Your task to perform on an android device: refresh tabs in the chrome app Image 0: 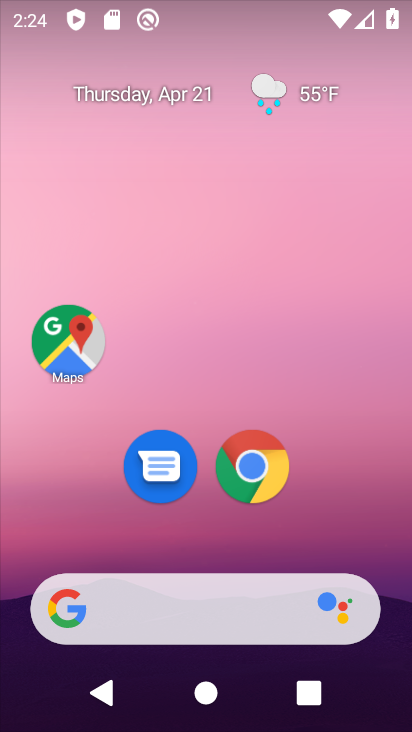
Step 0: click (261, 461)
Your task to perform on an android device: refresh tabs in the chrome app Image 1: 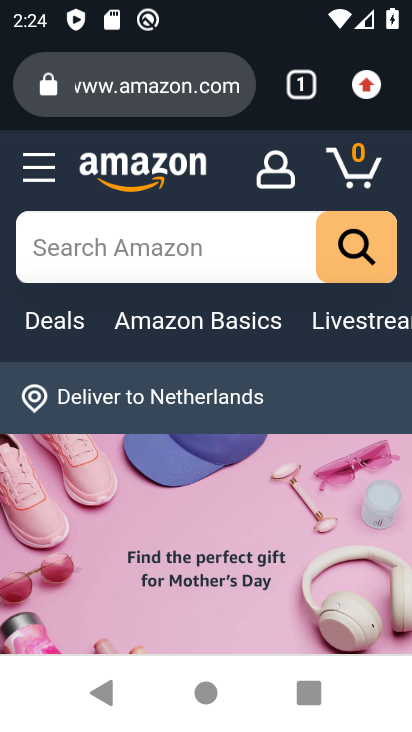
Step 1: click (368, 87)
Your task to perform on an android device: refresh tabs in the chrome app Image 2: 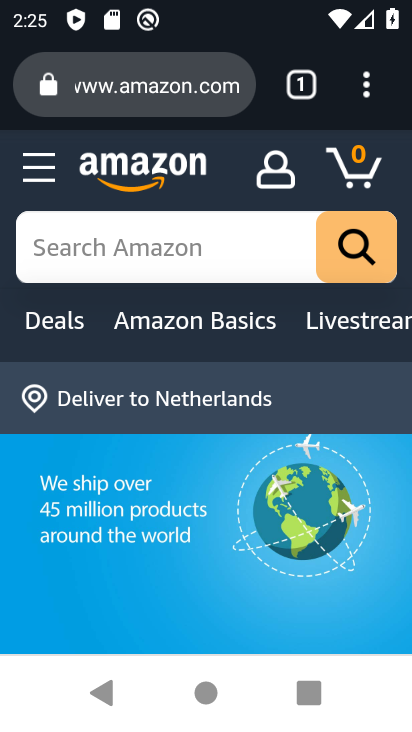
Step 2: task complete